Your task to perform on an android device: Open wifi settings Image 0: 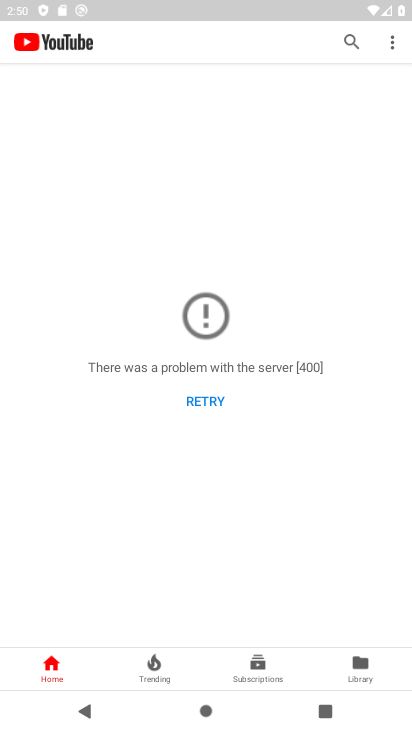
Step 0: press home button
Your task to perform on an android device: Open wifi settings Image 1: 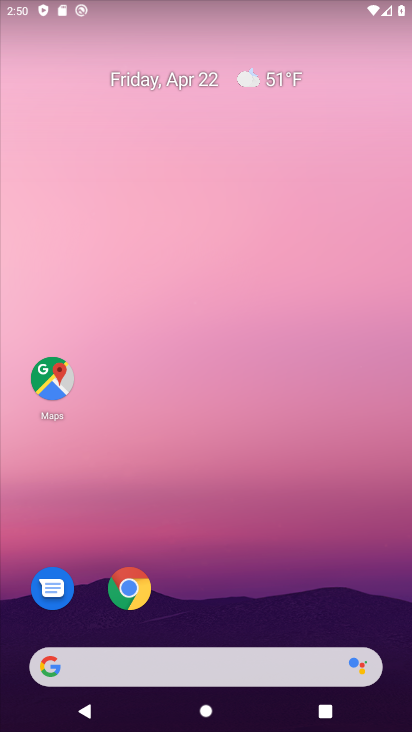
Step 1: drag from (342, 581) to (359, 58)
Your task to perform on an android device: Open wifi settings Image 2: 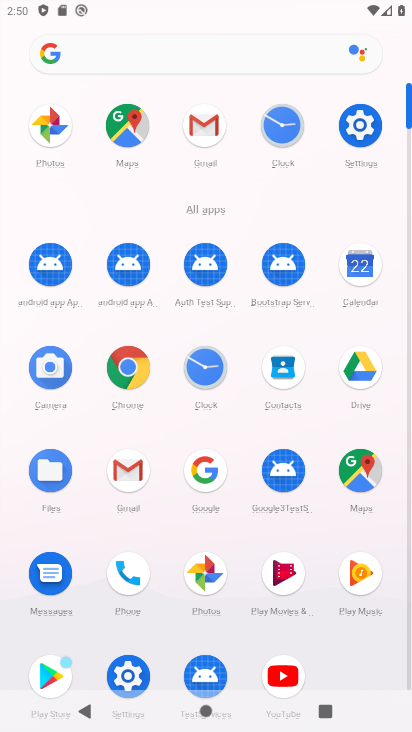
Step 2: click (376, 133)
Your task to perform on an android device: Open wifi settings Image 3: 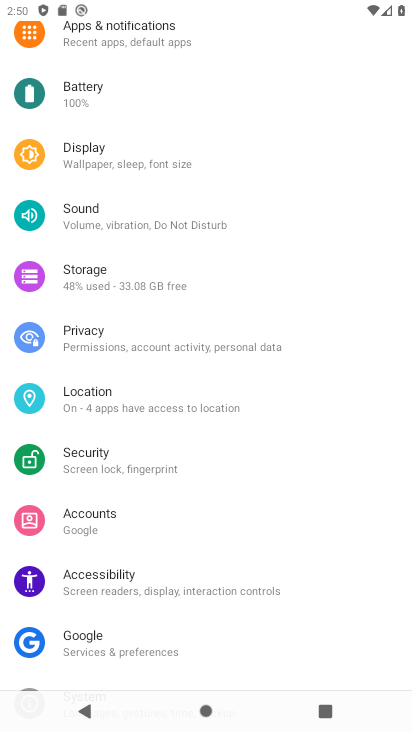
Step 3: drag from (357, 384) to (354, 489)
Your task to perform on an android device: Open wifi settings Image 4: 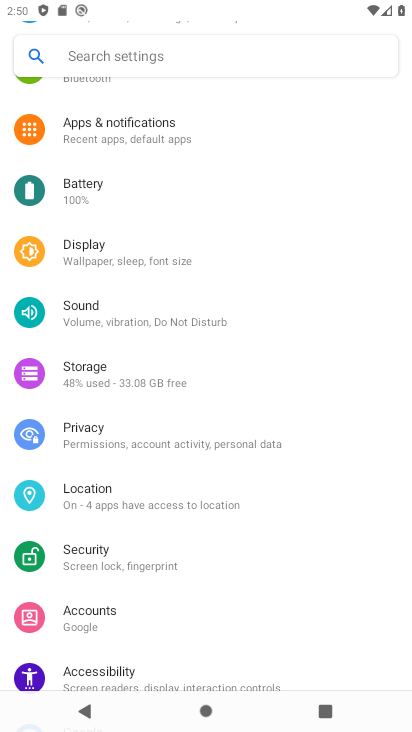
Step 4: drag from (349, 356) to (342, 470)
Your task to perform on an android device: Open wifi settings Image 5: 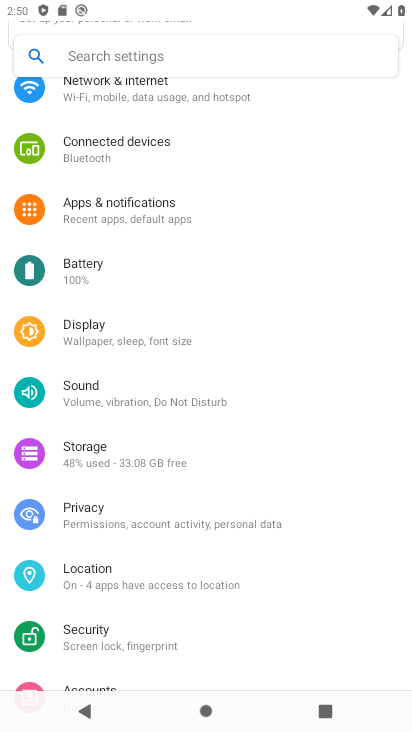
Step 5: drag from (337, 320) to (329, 425)
Your task to perform on an android device: Open wifi settings Image 6: 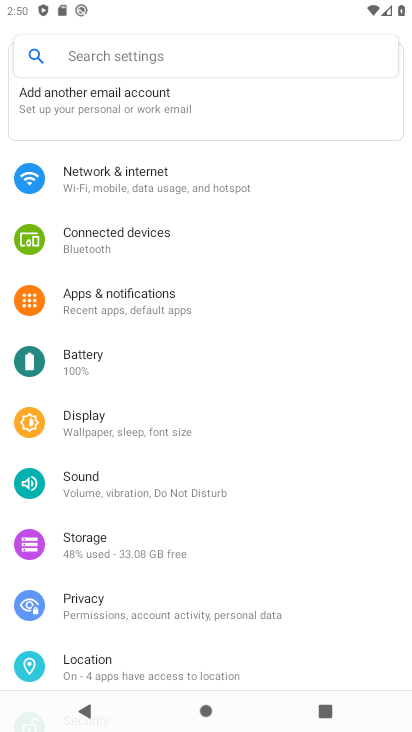
Step 6: drag from (336, 320) to (331, 439)
Your task to perform on an android device: Open wifi settings Image 7: 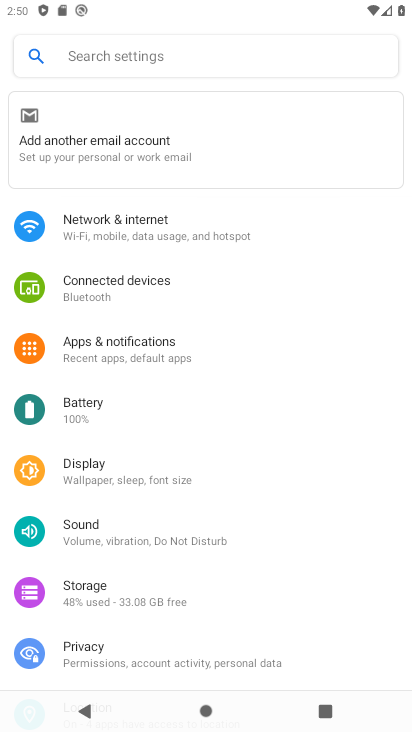
Step 7: drag from (325, 352) to (313, 434)
Your task to perform on an android device: Open wifi settings Image 8: 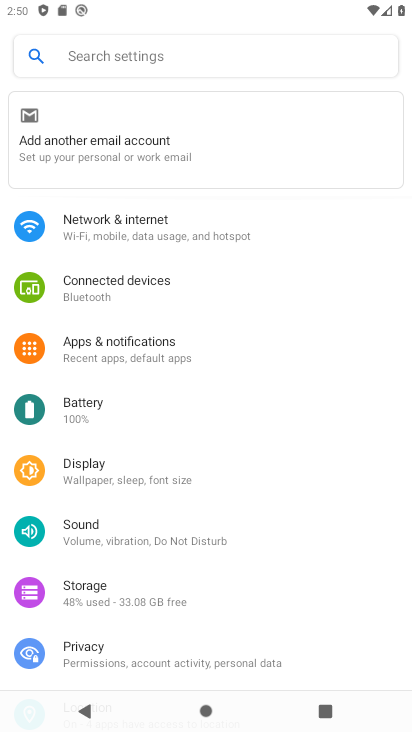
Step 8: click (241, 232)
Your task to perform on an android device: Open wifi settings Image 9: 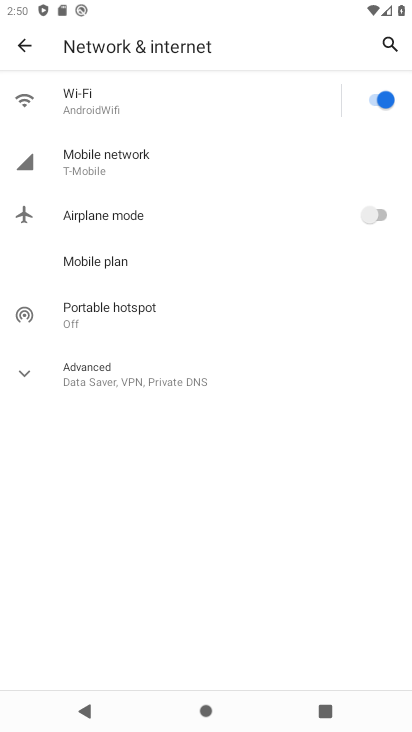
Step 9: click (168, 104)
Your task to perform on an android device: Open wifi settings Image 10: 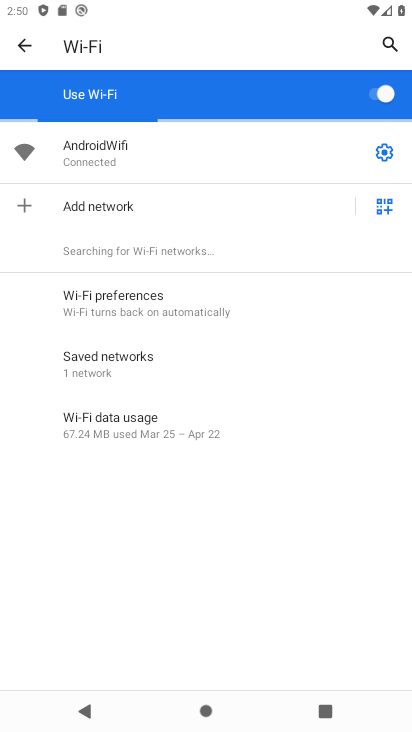
Step 10: task complete